Your task to perform on an android device: refresh tabs in the chrome app Image 0: 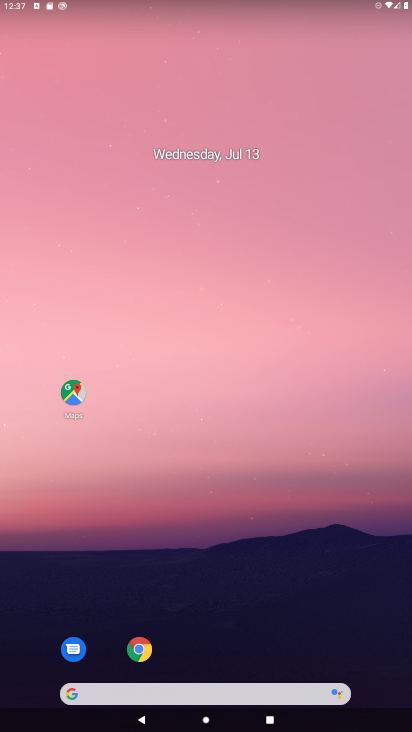
Step 0: click (138, 647)
Your task to perform on an android device: refresh tabs in the chrome app Image 1: 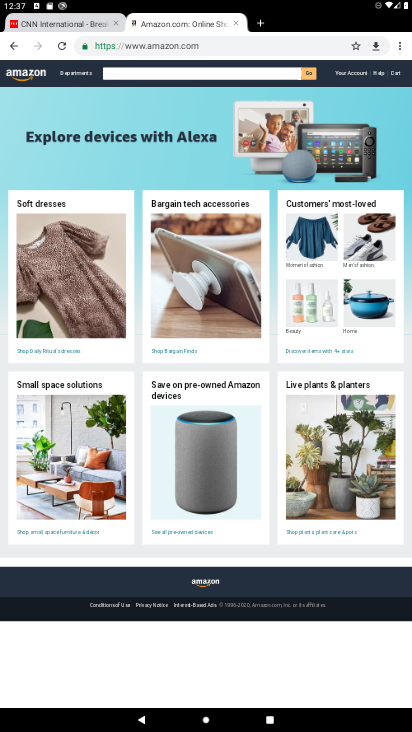
Step 1: click (392, 44)
Your task to perform on an android device: refresh tabs in the chrome app Image 2: 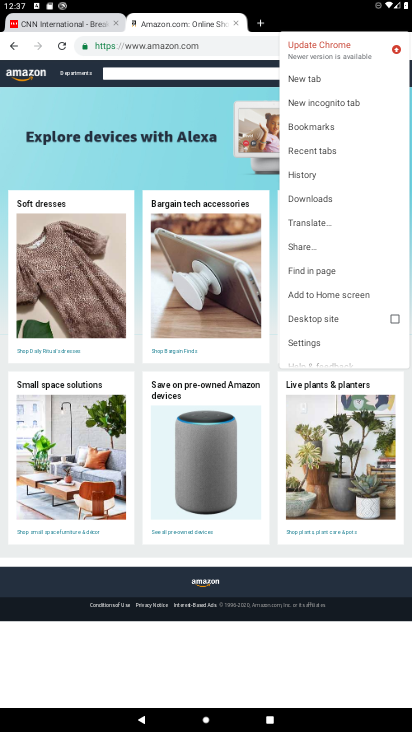
Step 2: click (219, 58)
Your task to perform on an android device: refresh tabs in the chrome app Image 3: 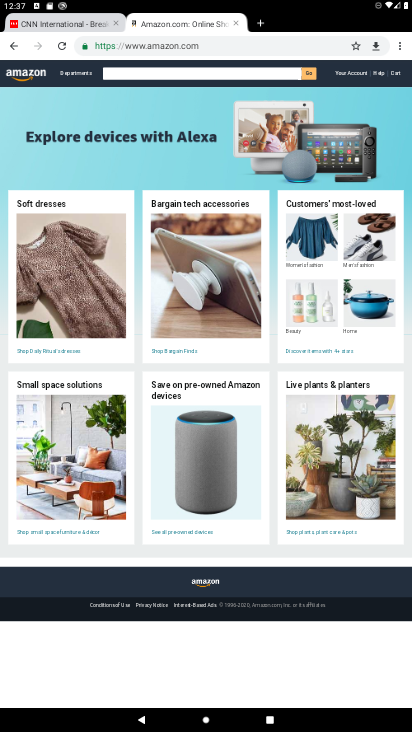
Step 3: click (61, 43)
Your task to perform on an android device: refresh tabs in the chrome app Image 4: 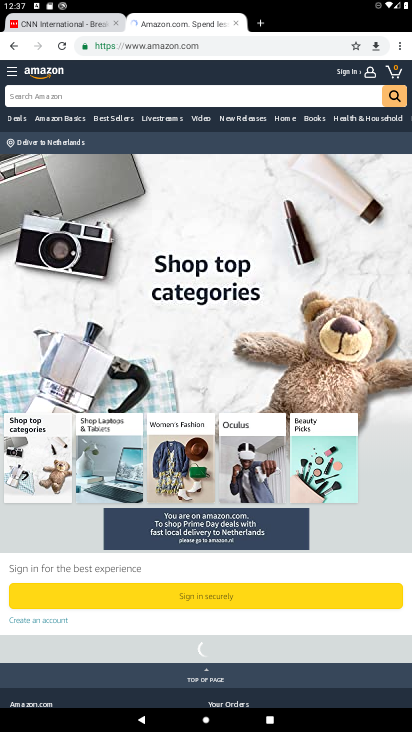
Step 4: task complete